Your task to perform on an android device: Is it going to rain tomorrow? Image 0: 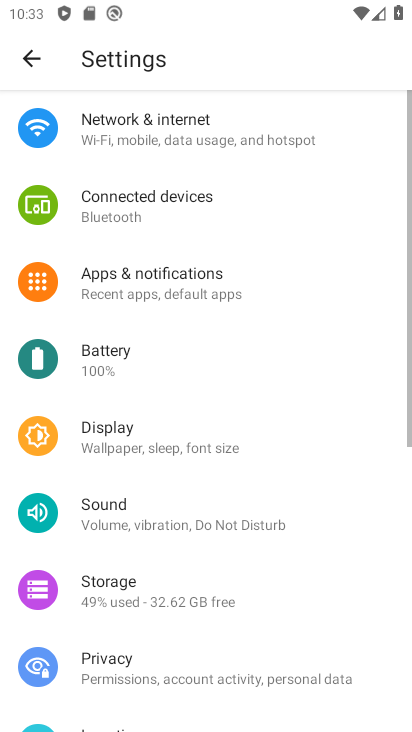
Step 0: press home button
Your task to perform on an android device: Is it going to rain tomorrow? Image 1: 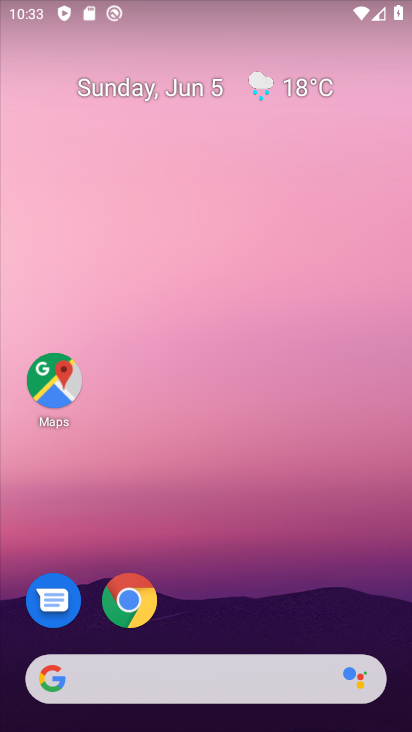
Step 1: drag from (210, 613) to (221, 184)
Your task to perform on an android device: Is it going to rain tomorrow? Image 2: 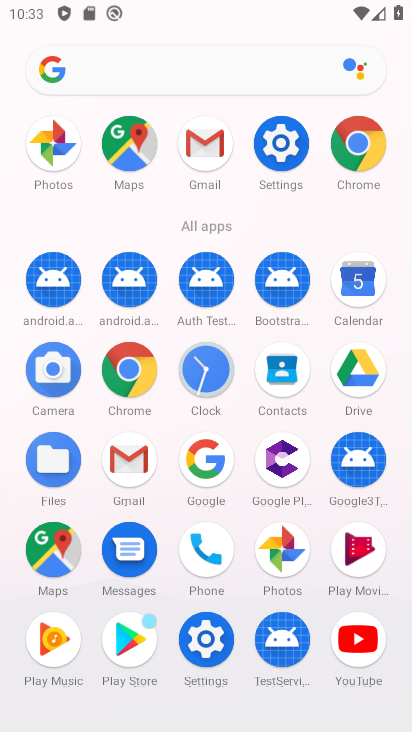
Step 2: click (347, 289)
Your task to perform on an android device: Is it going to rain tomorrow? Image 3: 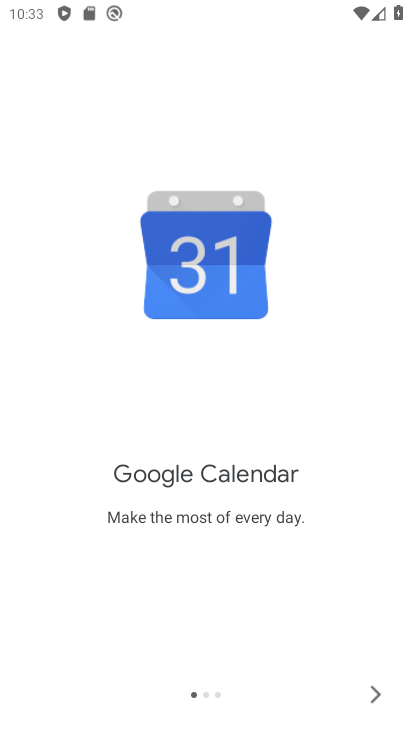
Step 3: click (364, 690)
Your task to perform on an android device: Is it going to rain tomorrow? Image 4: 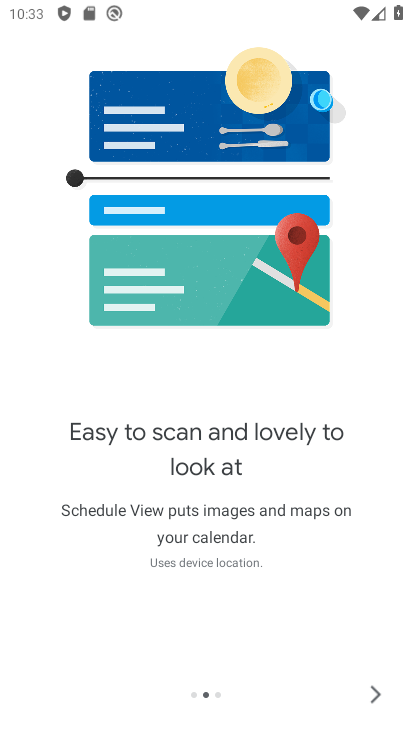
Step 4: click (367, 689)
Your task to perform on an android device: Is it going to rain tomorrow? Image 5: 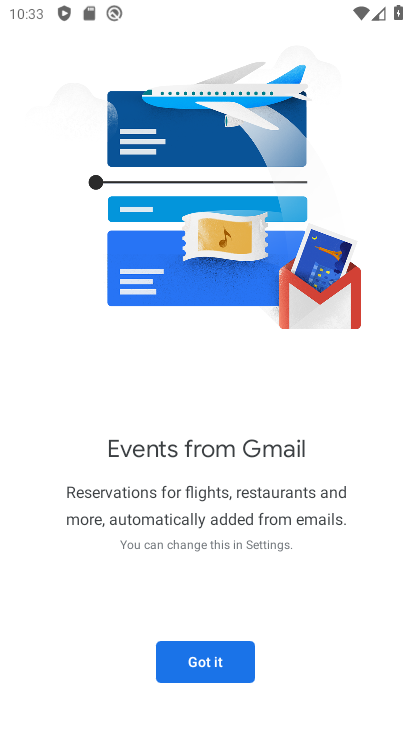
Step 5: click (232, 661)
Your task to perform on an android device: Is it going to rain tomorrow? Image 6: 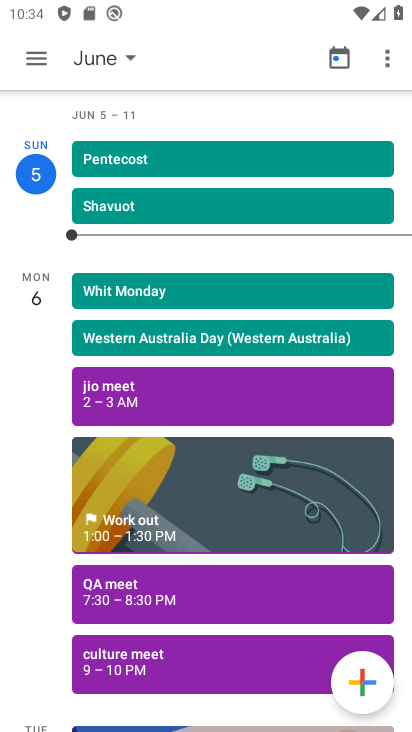
Step 6: click (126, 58)
Your task to perform on an android device: Is it going to rain tomorrow? Image 7: 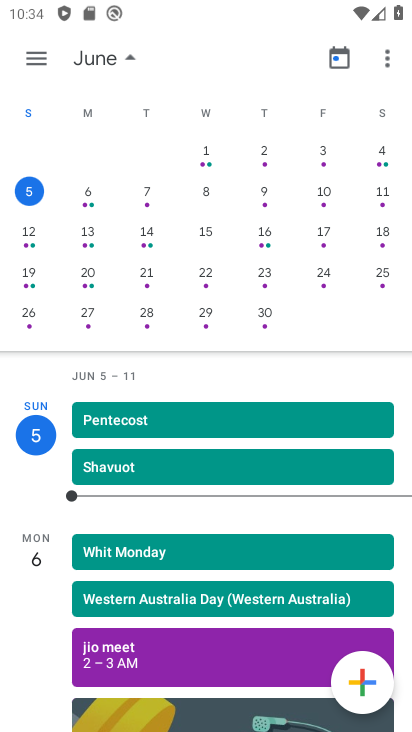
Step 7: drag from (248, 532) to (269, 412)
Your task to perform on an android device: Is it going to rain tomorrow? Image 8: 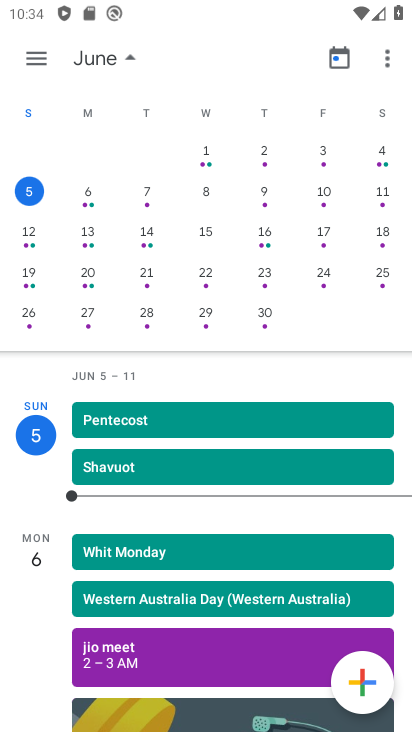
Step 8: press home button
Your task to perform on an android device: Is it going to rain tomorrow? Image 9: 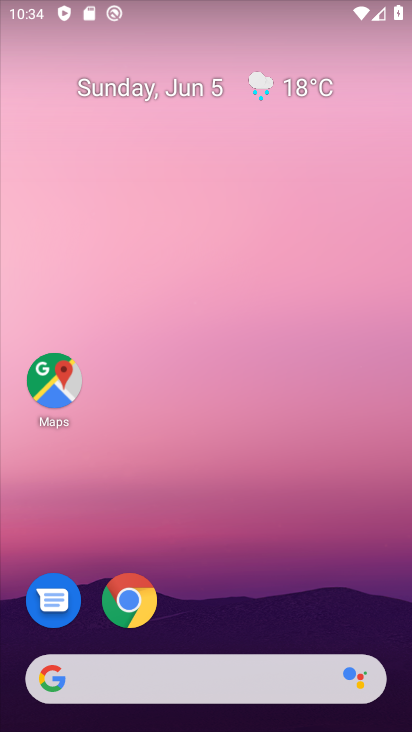
Step 9: drag from (198, 395) to (200, 123)
Your task to perform on an android device: Is it going to rain tomorrow? Image 10: 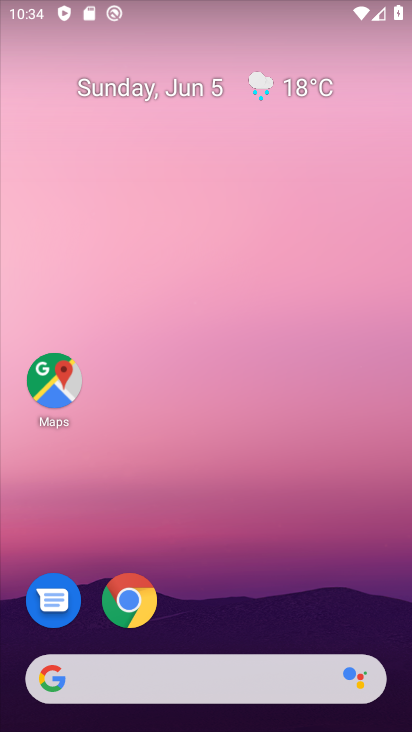
Step 10: drag from (219, 594) to (228, 113)
Your task to perform on an android device: Is it going to rain tomorrow? Image 11: 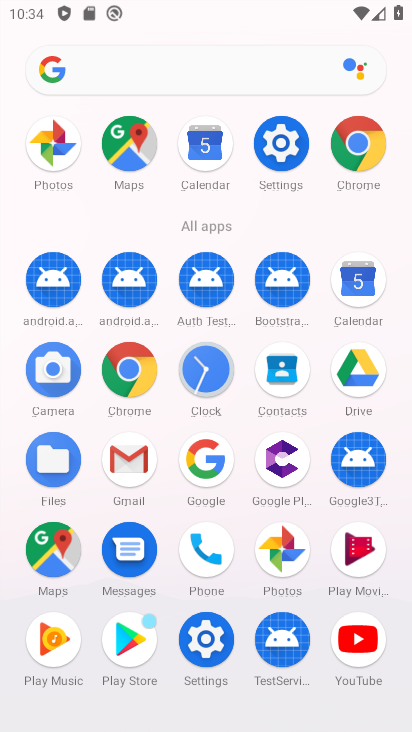
Step 11: click (186, 467)
Your task to perform on an android device: Is it going to rain tomorrow? Image 12: 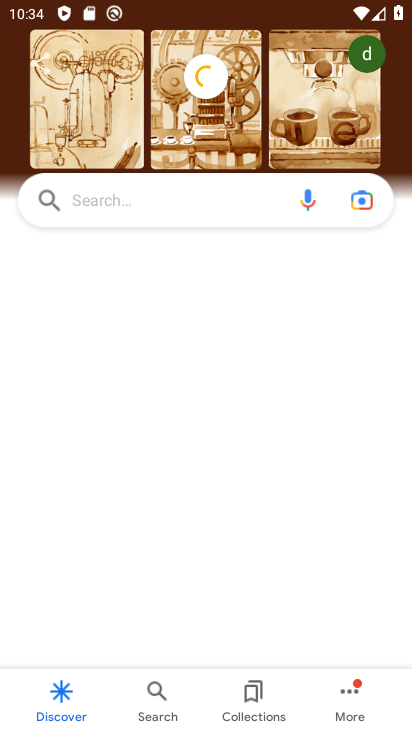
Step 12: click (154, 207)
Your task to perform on an android device: Is it going to rain tomorrow? Image 13: 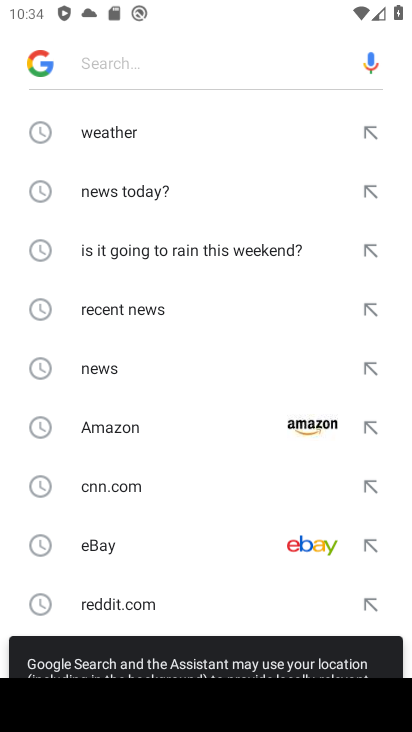
Step 13: click (146, 132)
Your task to perform on an android device: Is it going to rain tomorrow? Image 14: 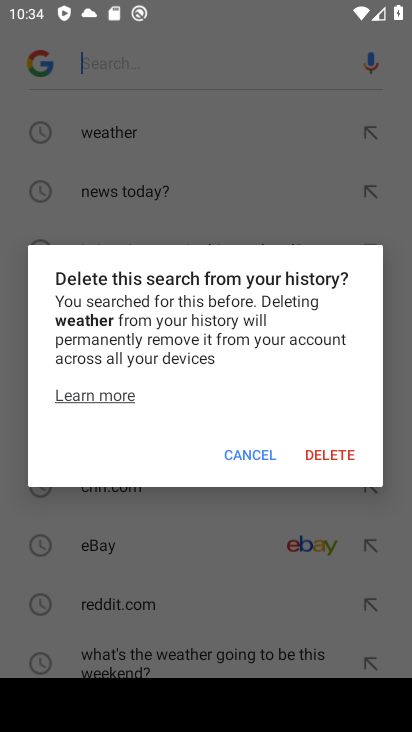
Step 14: click (263, 446)
Your task to perform on an android device: Is it going to rain tomorrow? Image 15: 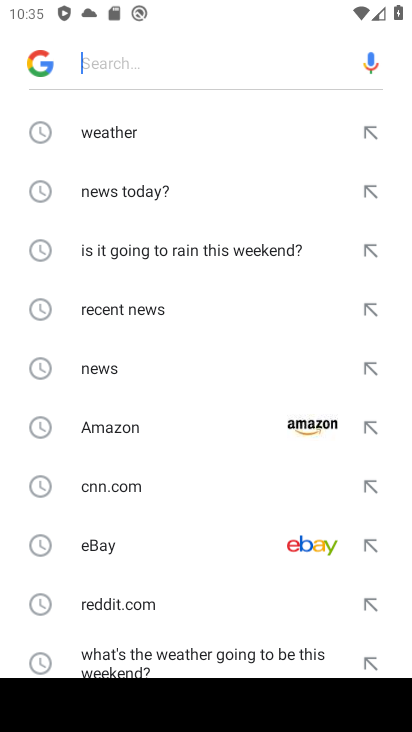
Step 15: click (132, 138)
Your task to perform on an android device: Is it going to rain tomorrow? Image 16: 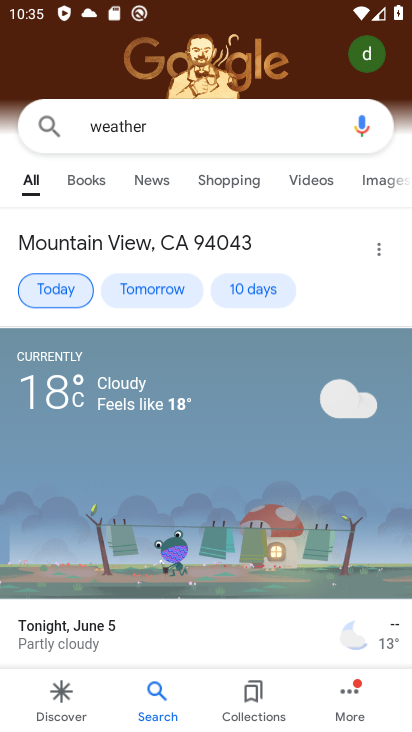
Step 16: click (169, 279)
Your task to perform on an android device: Is it going to rain tomorrow? Image 17: 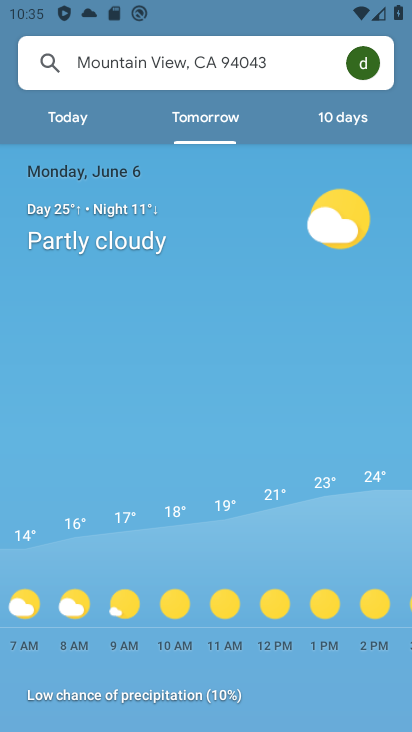
Step 17: task complete